Your task to perform on an android device: Open Google Chrome and click the shortcut for Amazon.com Image 0: 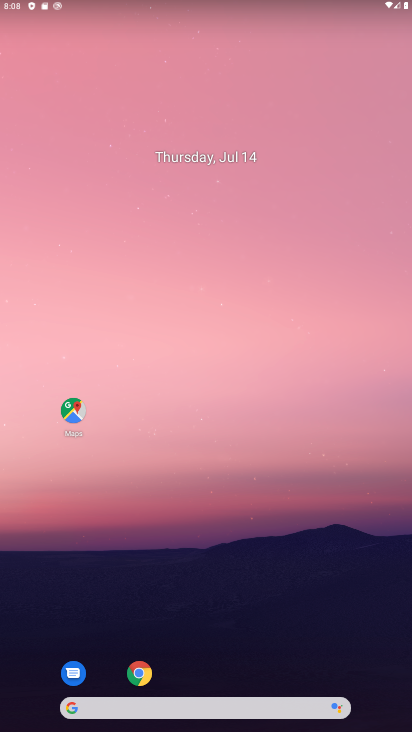
Step 0: click (137, 671)
Your task to perform on an android device: Open Google Chrome and click the shortcut for Amazon.com Image 1: 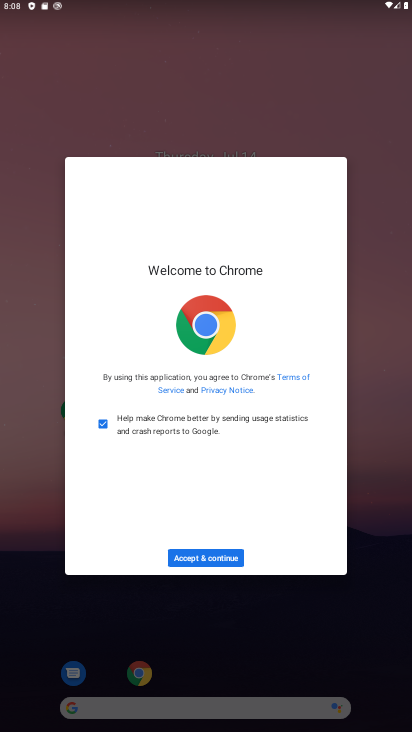
Step 1: click (209, 558)
Your task to perform on an android device: Open Google Chrome and click the shortcut for Amazon.com Image 2: 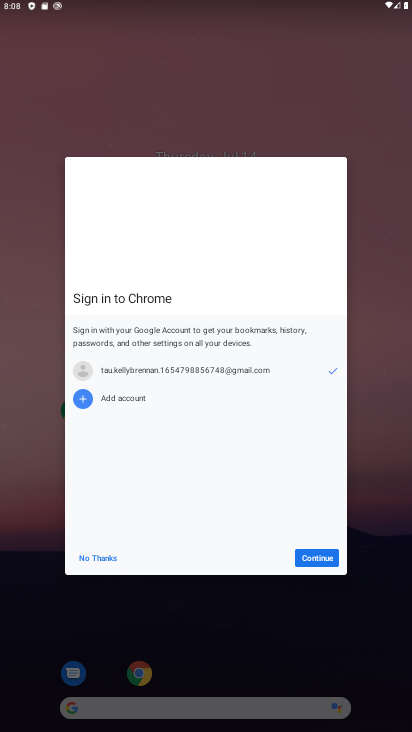
Step 2: click (209, 558)
Your task to perform on an android device: Open Google Chrome and click the shortcut for Amazon.com Image 3: 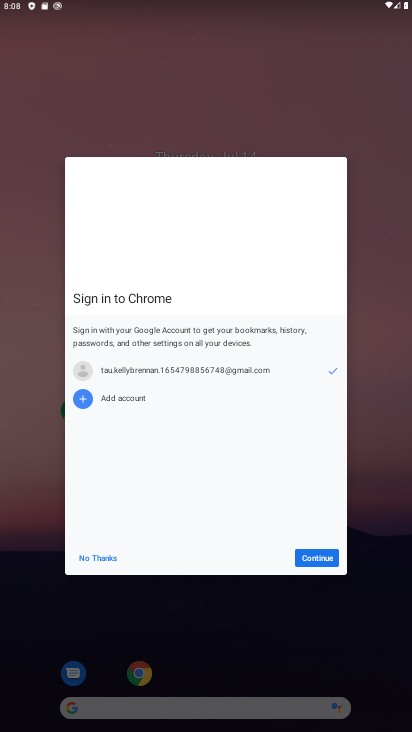
Step 3: click (309, 557)
Your task to perform on an android device: Open Google Chrome and click the shortcut for Amazon.com Image 4: 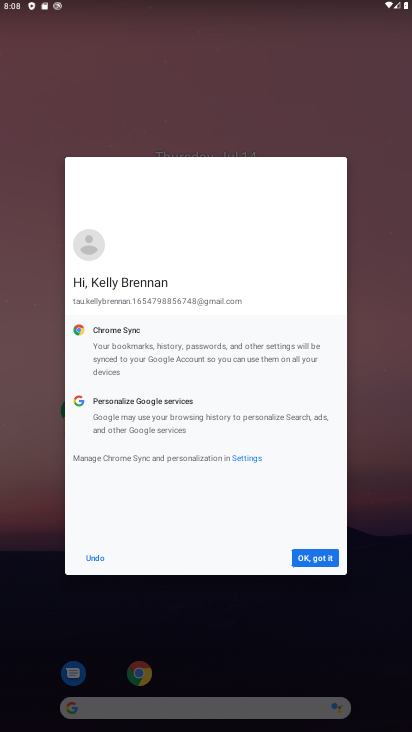
Step 4: click (309, 557)
Your task to perform on an android device: Open Google Chrome and click the shortcut for Amazon.com Image 5: 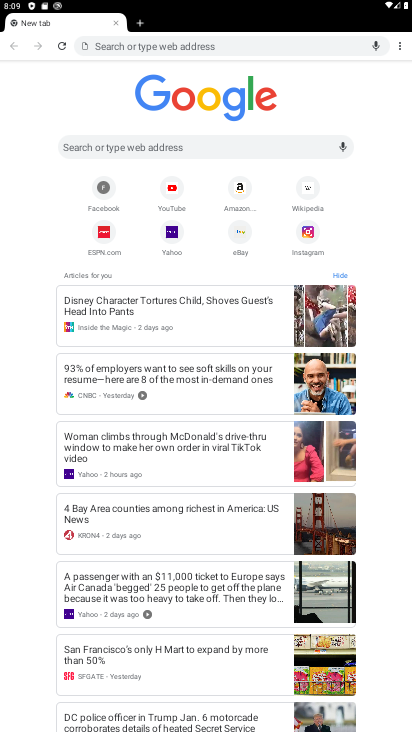
Step 5: click (236, 187)
Your task to perform on an android device: Open Google Chrome and click the shortcut for Amazon.com Image 6: 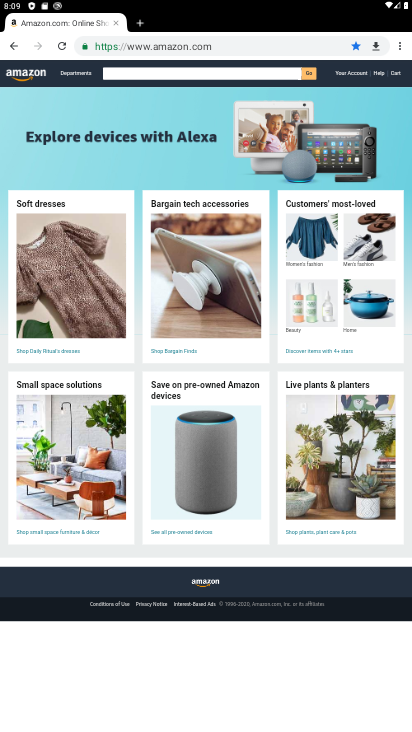
Step 6: click (400, 48)
Your task to perform on an android device: Open Google Chrome and click the shortcut for Amazon.com Image 7: 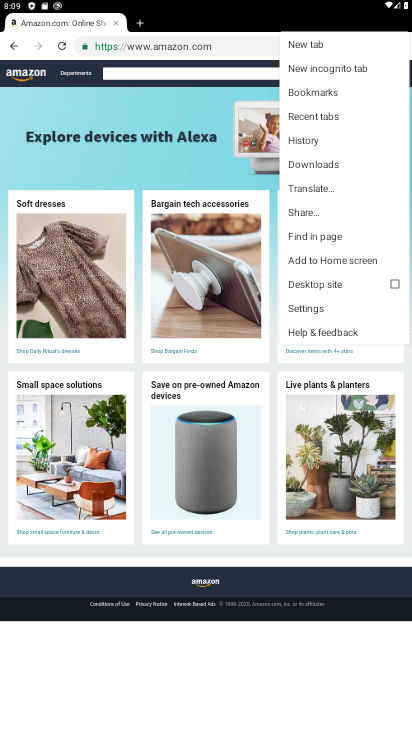
Step 7: click (320, 256)
Your task to perform on an android device: Open Google Chrome and click the shortcut for Amazon.com Image 8: 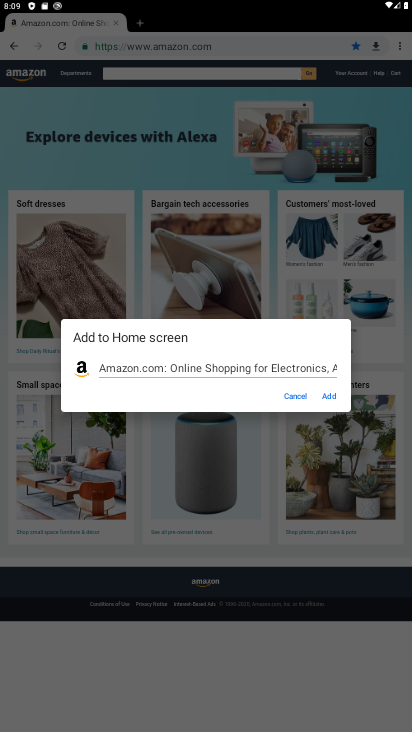
Step 8: click (329, 395)
Your task to perform on an android device: Open Google Chrome and click the shortcut for Amazon.com Image 9: 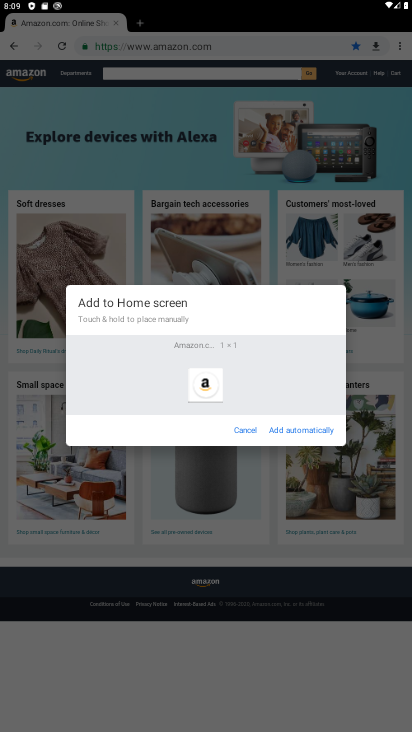
Step 9: click (310, 434)
Your task to perform on an android device: Open Google Chrome and click the shortcut for Amazon.com Image 10: 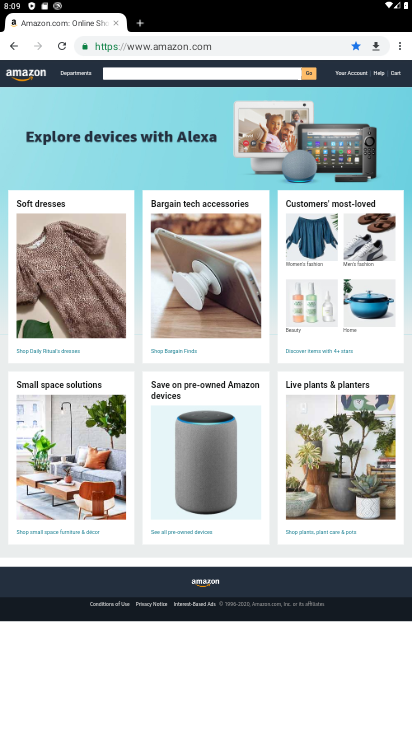
Step 10: task complete